Your task to perform on an android device: Open Youtube and go to "Your channel" Image 0: 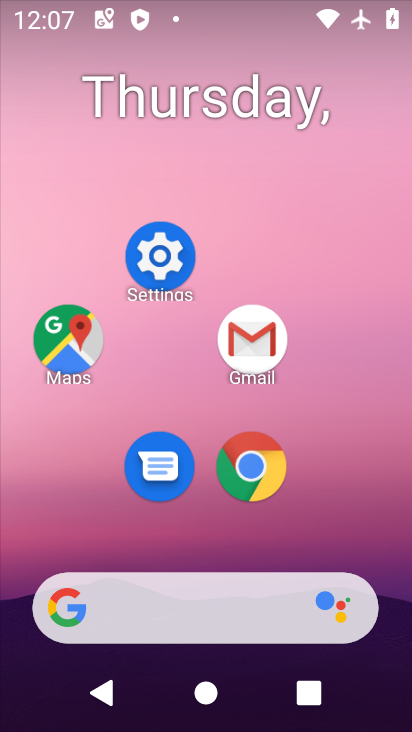
Step 0: drag from (195, 527) to (235, 133)
Your task to perform on an android device: Open Youtube and go to "Your channel" Image 1: 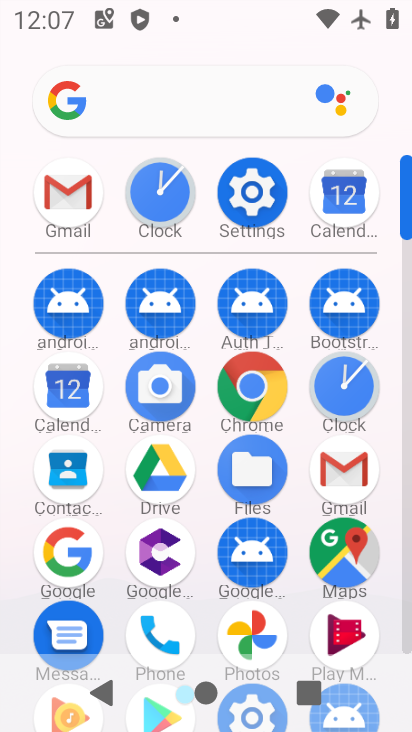
Step 1: drag from (204, 611) to (232, 106)
Your task to perform on an android device: Open Youtube and go to "Your channel" Image 2: 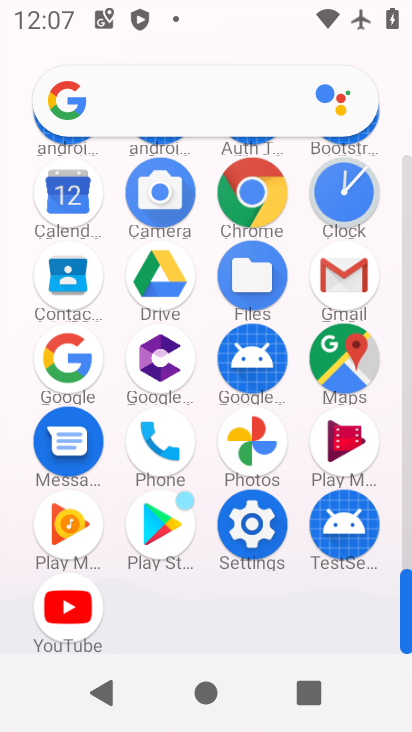
Step 2: click (78, 604)
Your task to perform on an android device: Open Youtube and go to "Your channel" Image 3: 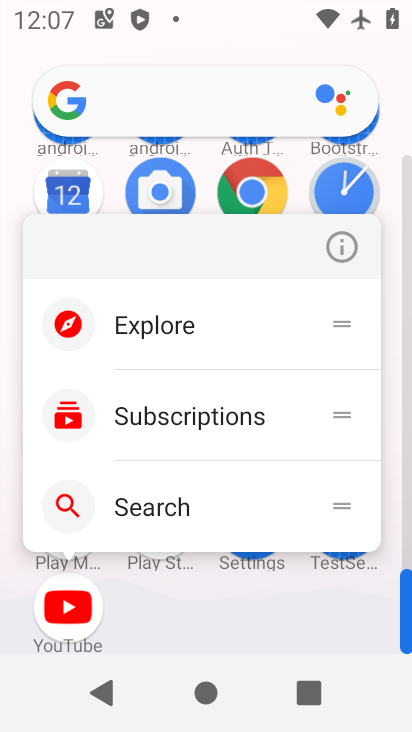
Step 3: click (327, 254)
Your task to perform on an android device: Open Youtube and go to "Your channel" Image 4: 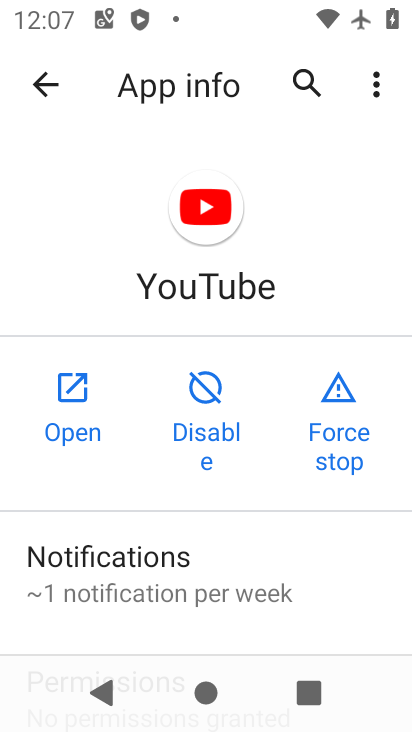
Step 4: click (60, 382)
Your task to perform on an android device: Open Youtube and go to "Your channel" Image 5: 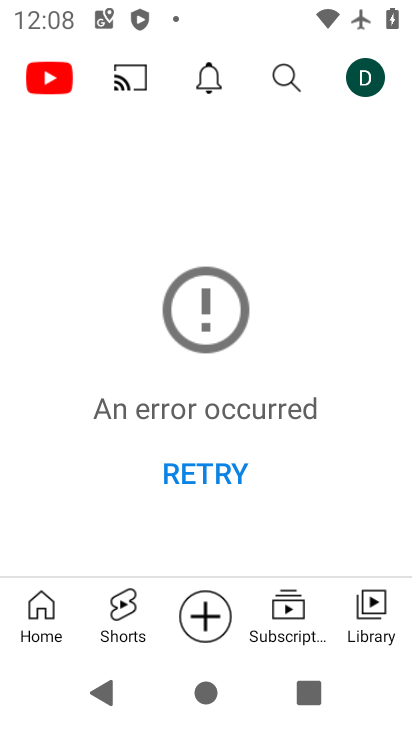
Step 5: drag from (219, 520) to (344, 252)
Your task to perform on an android device: Open Youtube and go to "Your channel" Image 6: 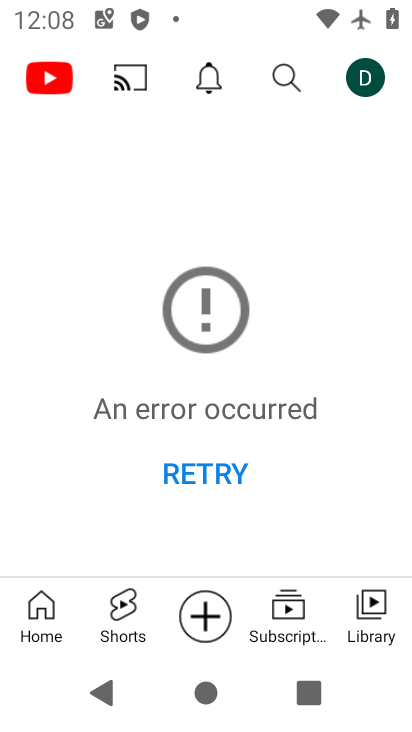
Step 6: click (365, 612)
Your task to perform on an android device: Open Youtube and go to "Your channel" Image 7: 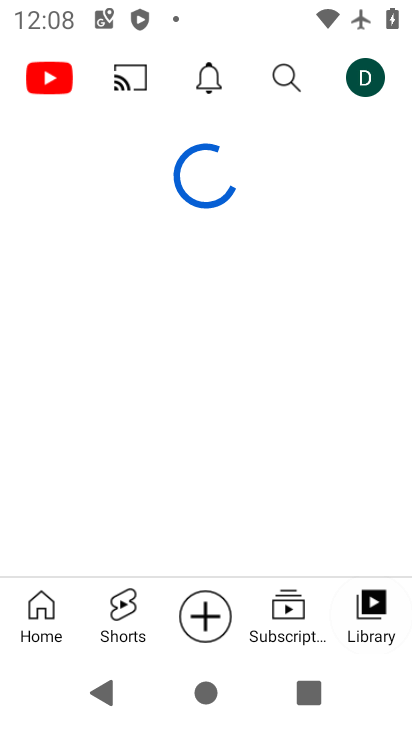
Step 7: click (366, 77)
Your task to perform on an android device: Open Youtube and go to "Your channel" Image 8: 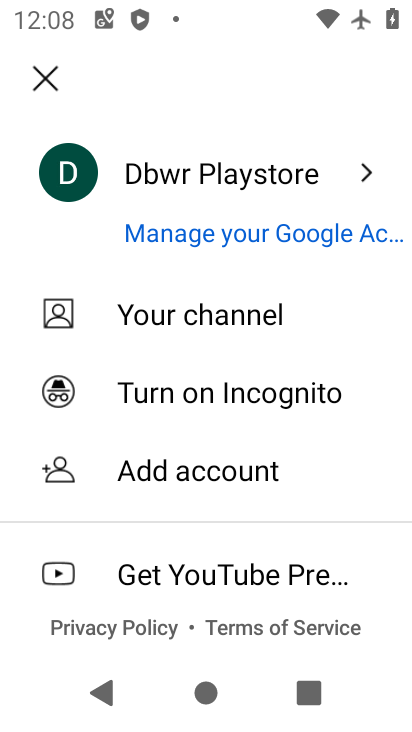
Step 8: click (140, 176)
Your task to perform on an android device: Open Youtube and go to "Your channel" Image 9: 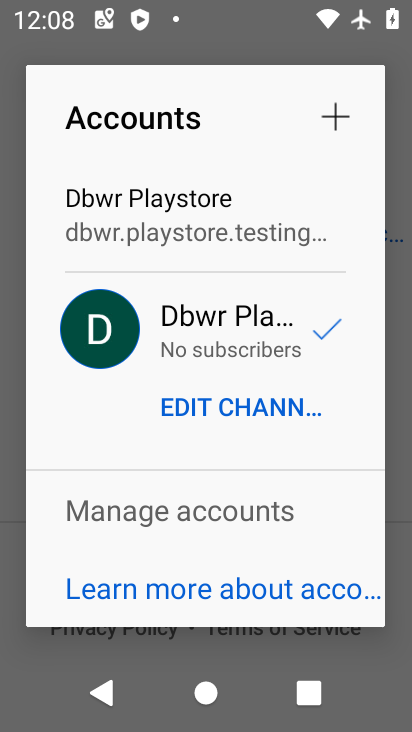
Step 9: click (211, 319)
Your task to perform on an android device: Open Youtube and go to "Your channel" Image 10: 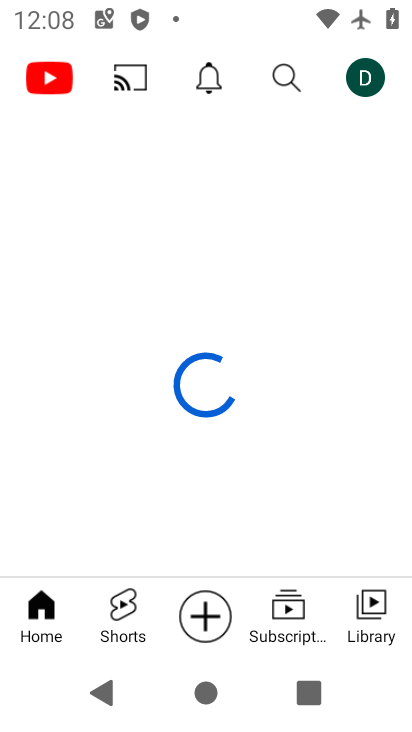
Step 10: task complete